Your task to perform on an android device: turn on wifi Image 0: 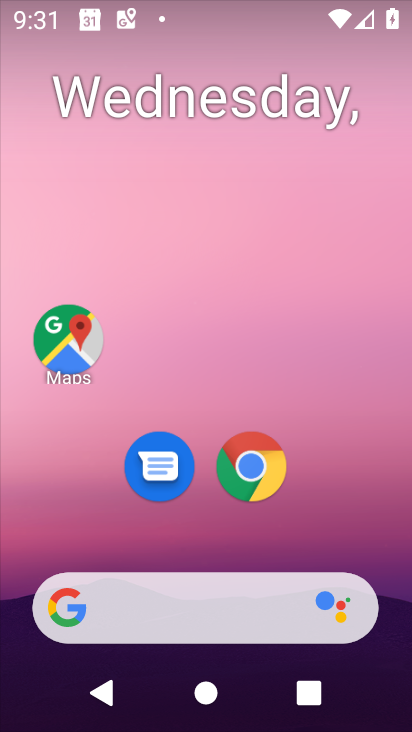
Step 0: drag from (321, 520) to (306, 241)
Your task to perform on an android device: turn on wifi Image 1: 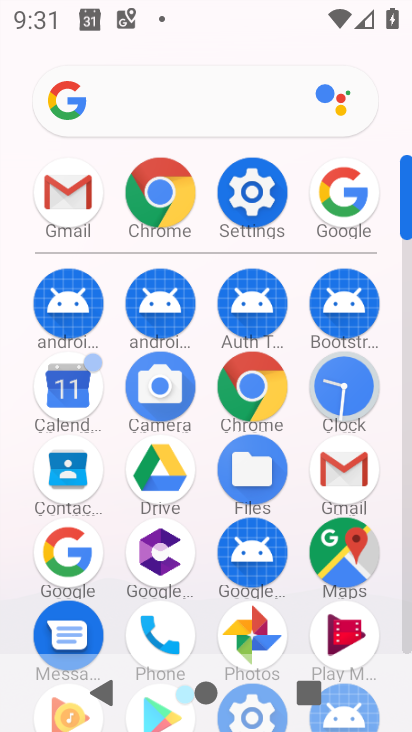
Step 1: click (245, 186)
Your task to perform on an android device: turn on wifi Image 2: 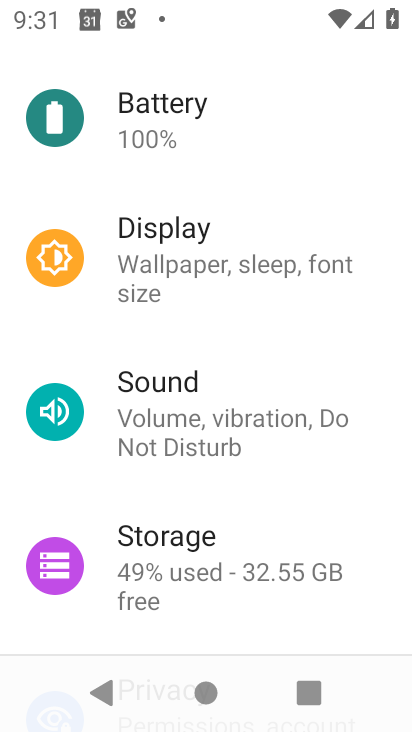
Step 2: drag from (266, 141) to (271, 580)
Your task to perform on an android device: turn on wifi Image 3: 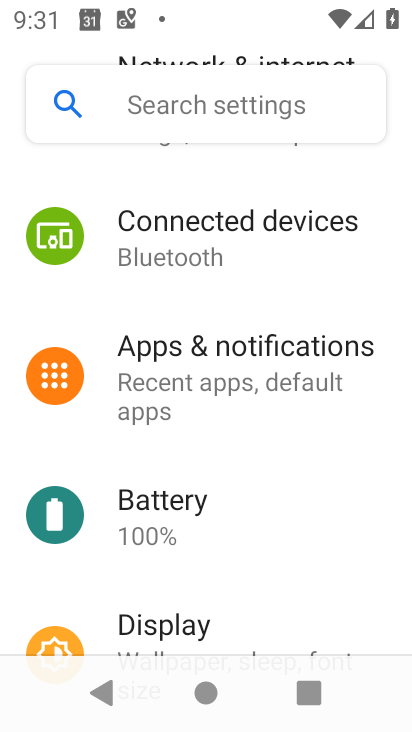
Step 3: drag from (237, 181) to (210, 644)
Your task to perform on an android device: turn on wifi Image 4: 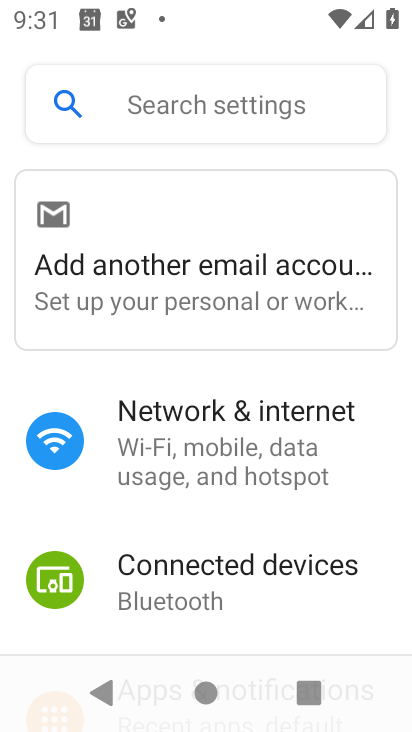
Step 4: click (174, 441)
Your task to perform on an android device: turn on wifi Image 5: 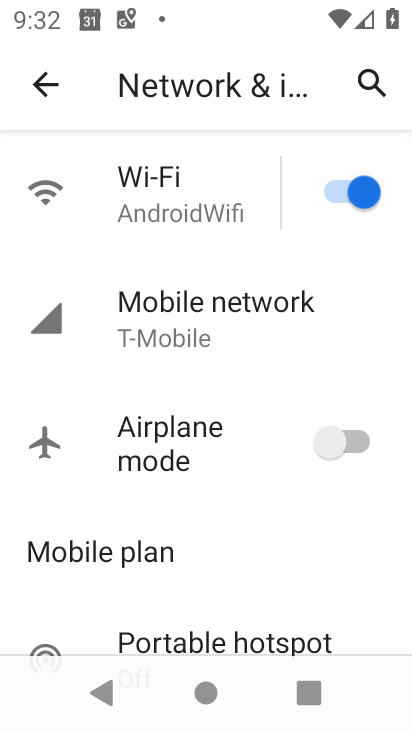
Step 5: task complete